Your task to perform on an android device: Search for Mexican restaurants on Maps Image 0: 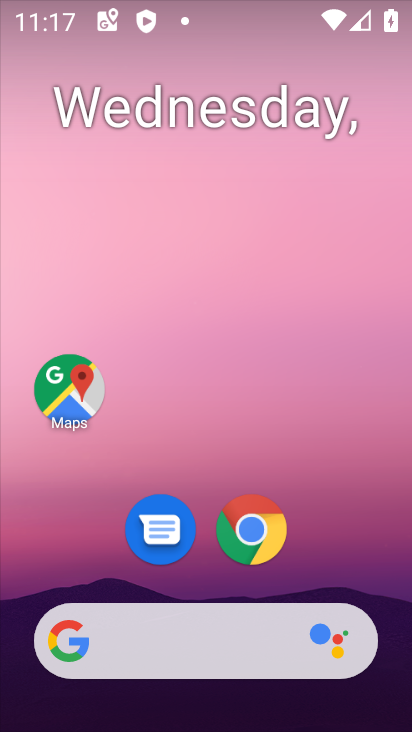
Step 0: drag from (192, 586) to (142, 121)
Your task to perform on an android device: Search for Mexican restaurants on Maps Image 1: 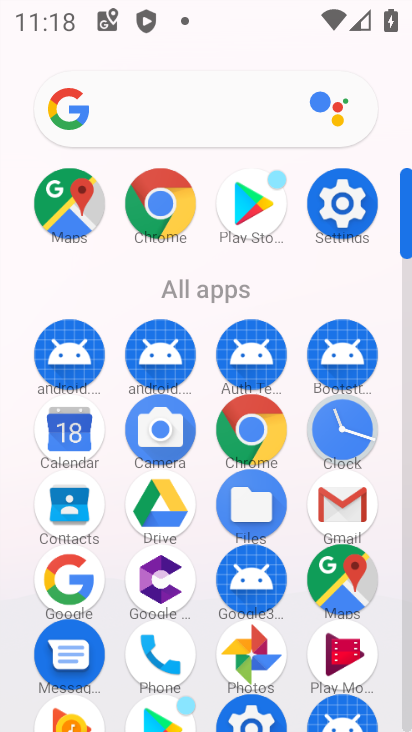
Step 1: click (350, 579)
Your task to perform on an android device: Search for Mexican restaurants on Maps Image 2: 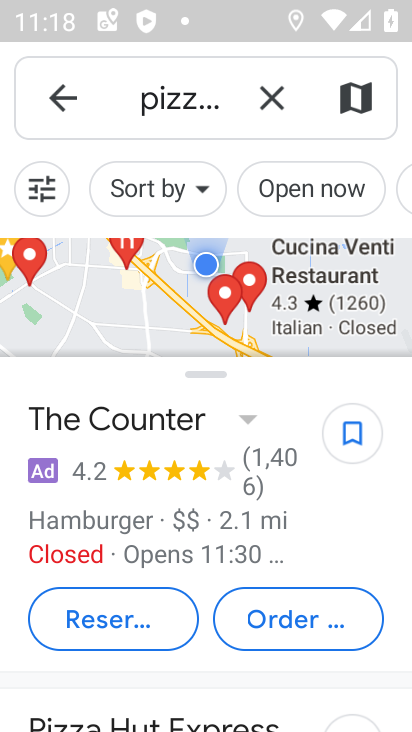
Step 2: click (275, 103)
Your task to perform on an android device: Search for Mexican restaurants on Maps Image 3: 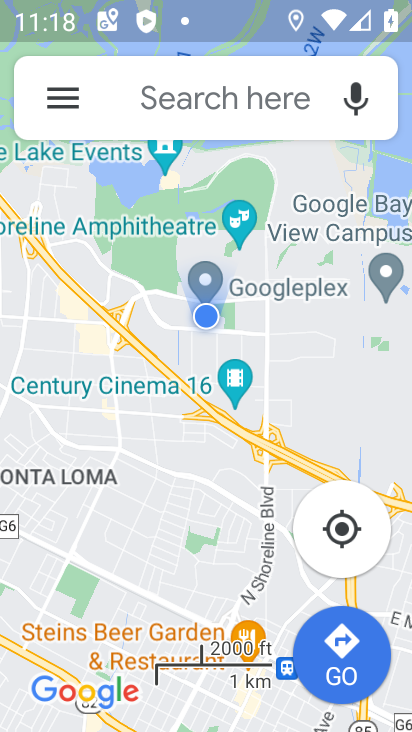
Step 3: click (209, 96)
Your task to perform on an android device: Search for Mexican restaurants on Maps Image 4: 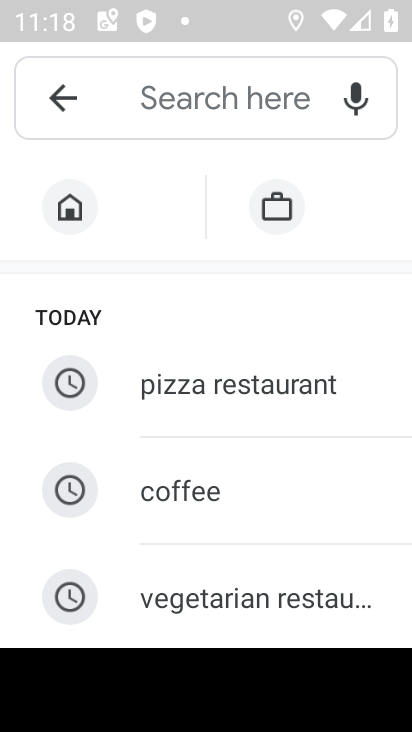
Step 4: drag from (227, 498) to (219, 98)
Your task to perform on an android device: Search for Mexican restaurants on Maps Image 5: 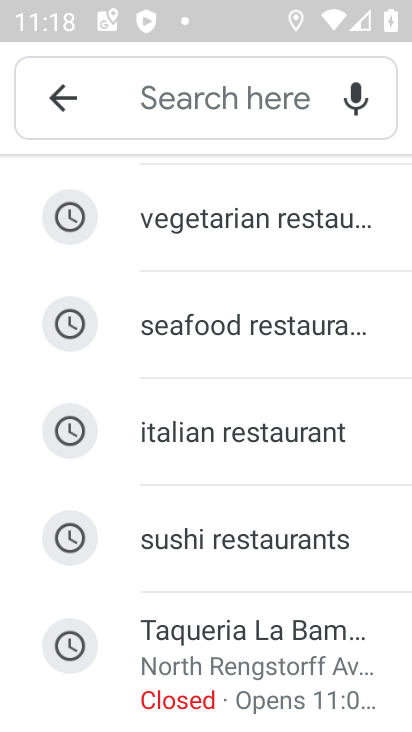
Step 5: drag from (203, 240) to (216, 584)
Your task to perform on an android device: Search for Mexican restaurants on Maps Image 6: 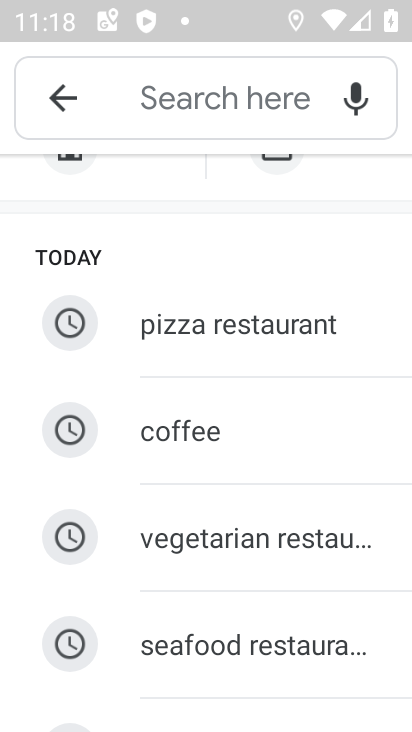
Step 6: drag from (233, 549) to (219, 50)
Your task to perform on an android device: Search for Mexican restaurants on Maps Image 7: 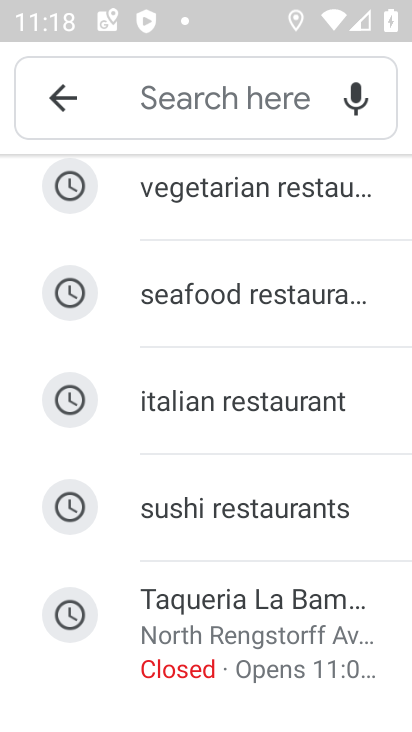
Step 7: drag from (251, 521) to (242, 106)
Your task to perform on an android device: Search for Mexican restaurants on Maps Image 8: 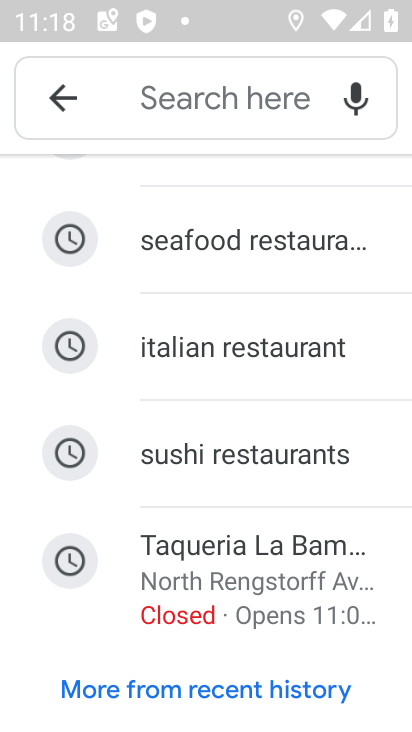
Step 8: click (156, 115)
Your task to perform on an android device: Search for Mexican restaurants on Maps Image 9: 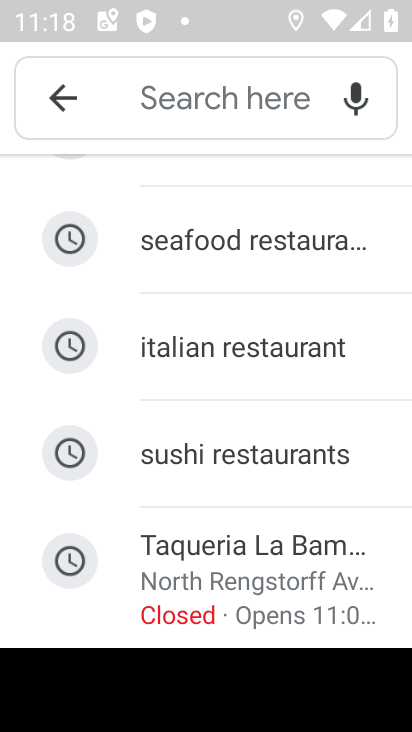
Step 9: type "mexican"
Your task to perform on an android device: Search for Mexican restaurants on Maps Image 10: 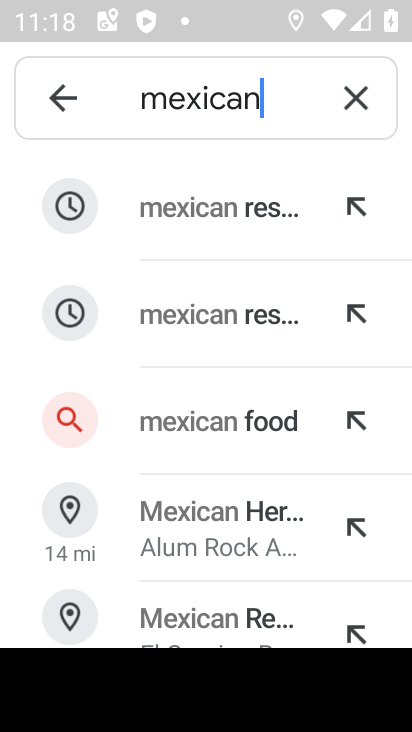
Step 10: click (251, 221)
Your task to perform on an android device: Search for Mexican restaurants on Maps Image 11: 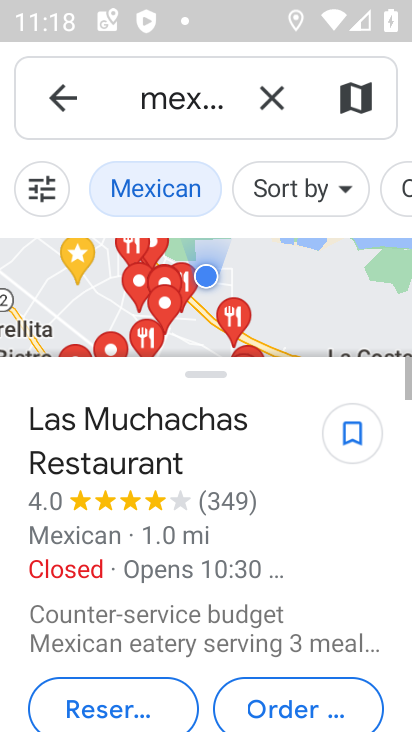
Step 11: task complete